Your task to perform on an android device: delete a single message in the gmail app Image 0: 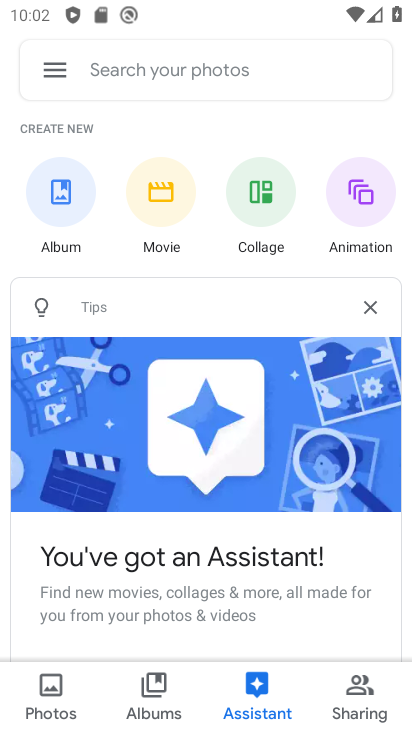
Step 0: press home button
Your task to perform on an android device: delete a single message in the gmail app Image 1: 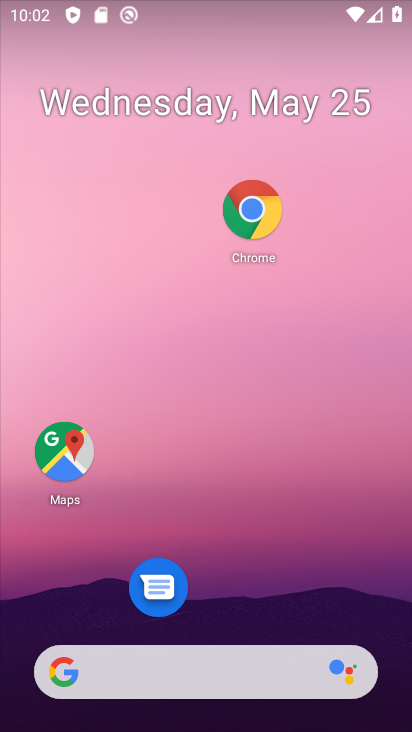
Step 1: drag from (228, 617) to (255, 4)
Your task to perform on an android device: delete a single message in the gmail app Image 2: 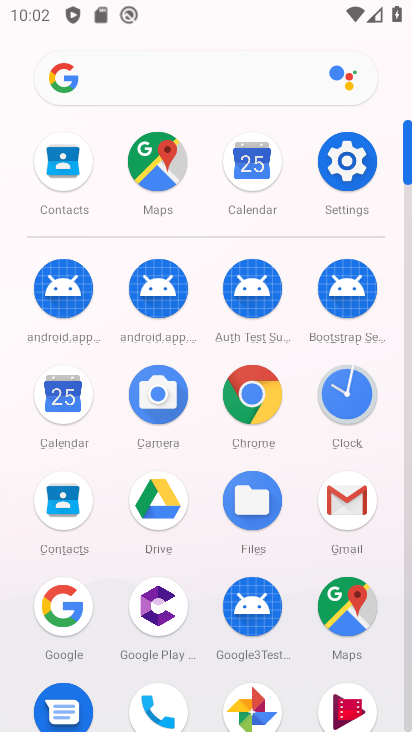
Step 2: click (352, 513)
Your task to perform on an android device: delete a single message in the gmail app Image 3: 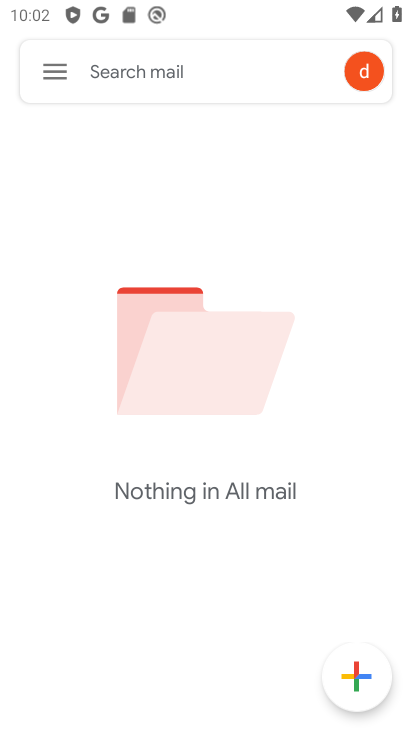
Step 3: task complete